Your task to perform on an android device: Open Wikipedia Image 0: 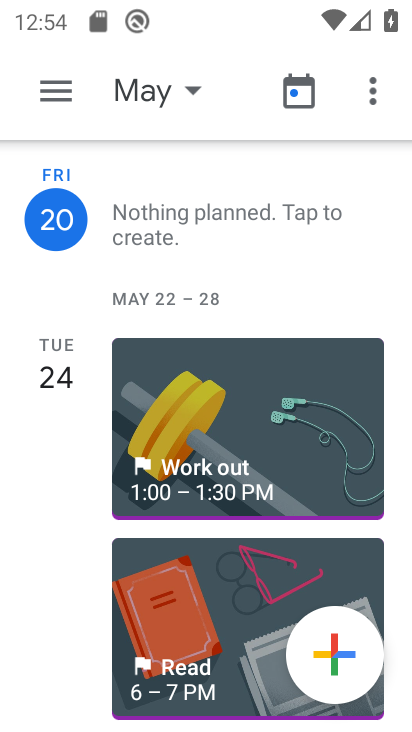
Step 0: press home button
Your task to perform on an android device: Open Wikipedia Image 1: 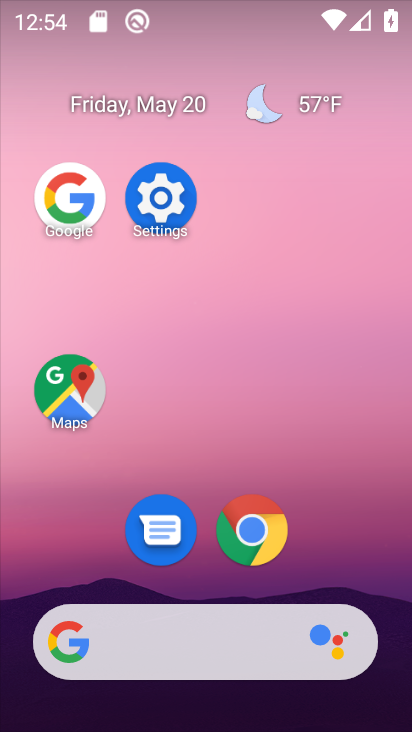
Step 1: click (243, 519)
Your task to perform on an android device: Open Wikipedia Image 2: 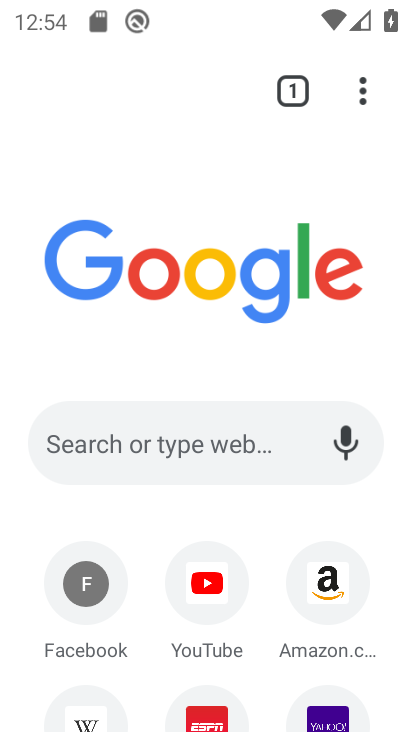
Step 2: click (83, 715)
Your task to perform on an android device: Open Wikipedia Image 3: 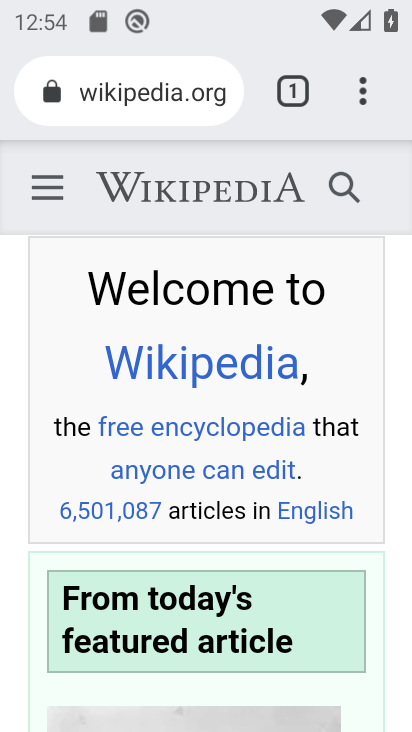
Step 3: task complete